Your task to perform on an android device: check the backup settings in the google photos Image 0: 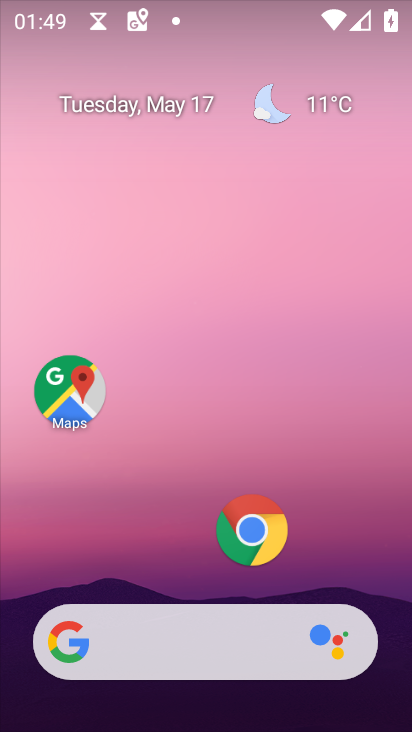
Step 0: drag from (372, 547) to (241, 162)
Your task to perform on an android device: check the backup settings in the google photos Image 1: 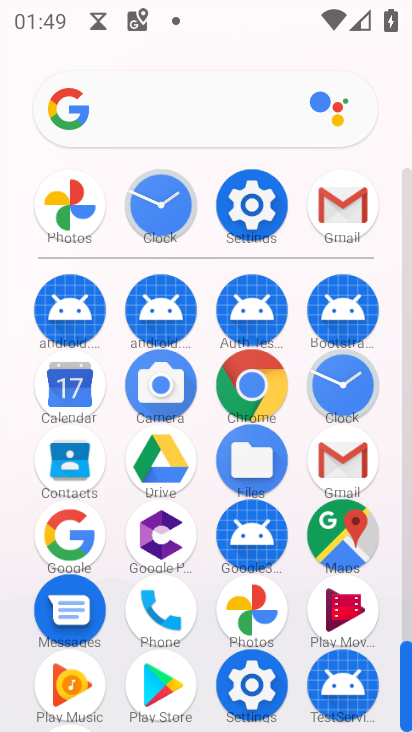
Step 1: click (246, 602)
Your task to perform on an android device: check the backup settings in the google photos Image 2: 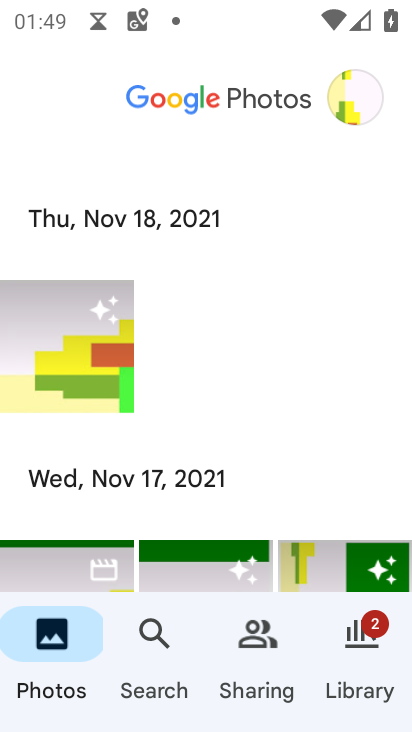
Step 2: click (340, 100)
Your task to perform on an android device: check the backup settings in the google photos Image 3: 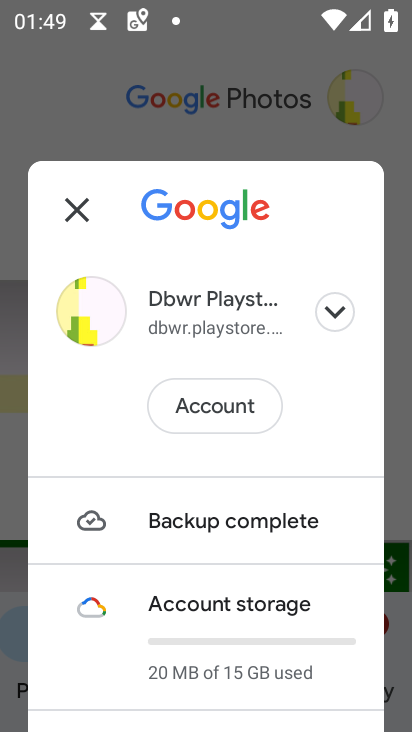
Step 3: drag from (255, 573) to (194, 228)
Your task to perform on an android device: check the backup settings in the google photos Image 4: 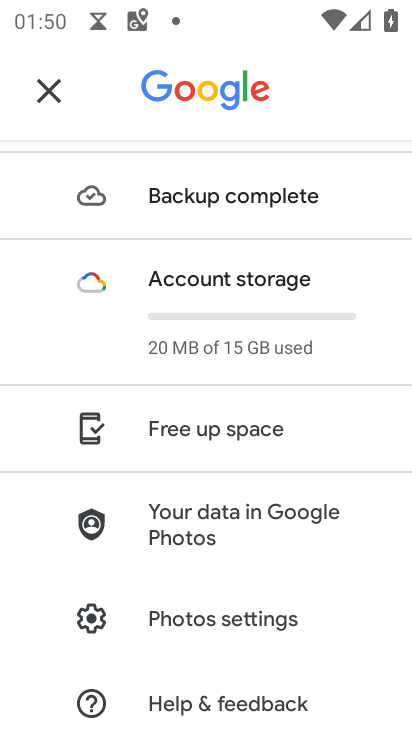
Step 4: click (127, 205)
Your task to perform on an android device: check the backup settings in the google photos Image 5: 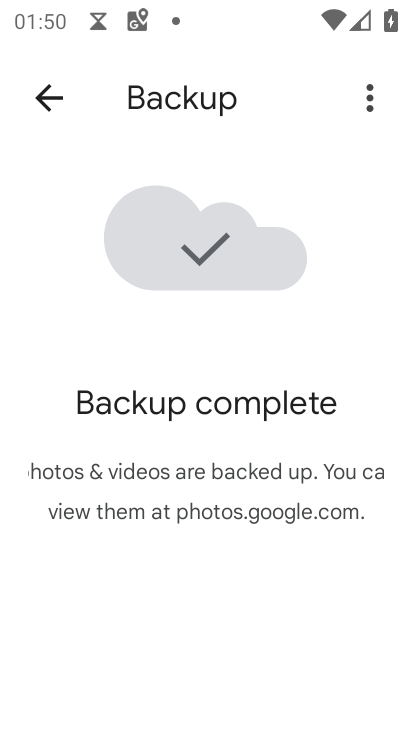
Step 5: task complete